Your task to perform on an android device: Open the phone app and click the voicemail tab. Image 0: 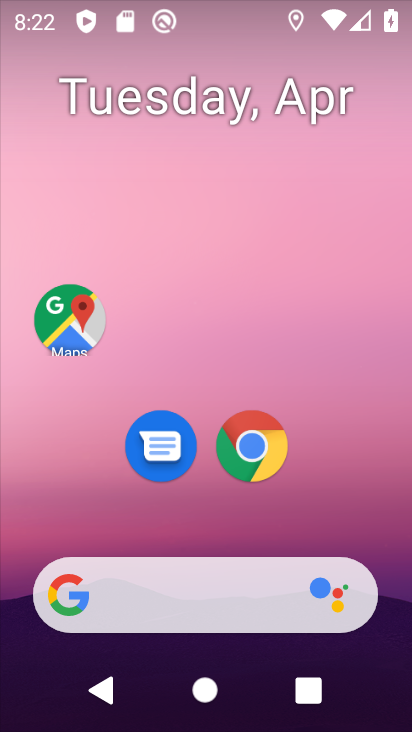
Step 0: drag from (324, 531) to (235, 120)
Your task to perform on an android device: Open the phone app and click the voicemail tab. Image 1: 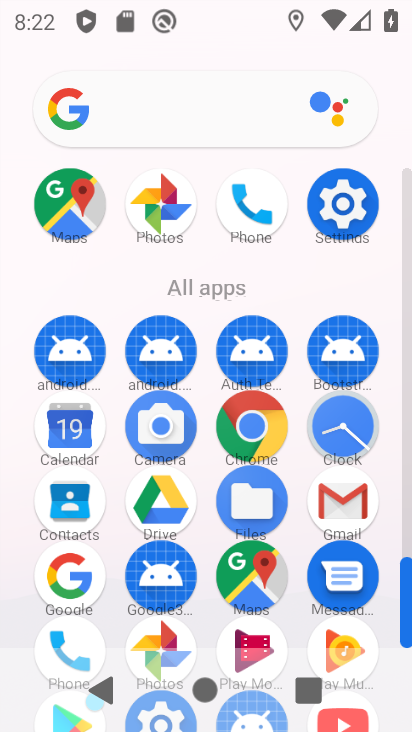
Step 1: click (71, 634)
Your task to perform on an android device: Open the phone app and click the voicemail tab. Image 2: 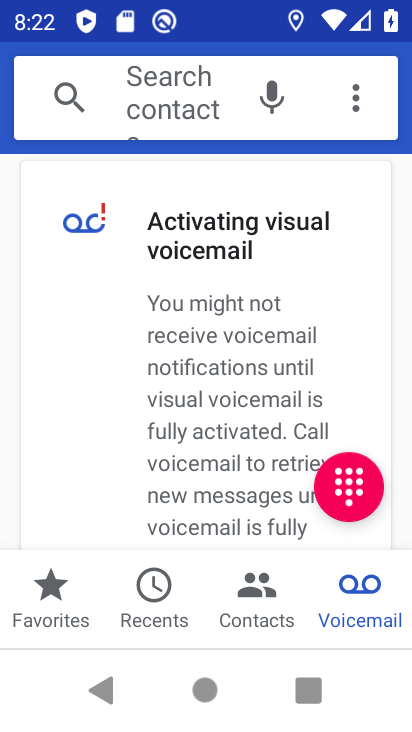
Step 2: task complete